Your task to perform on an android device: Open maps Image 0: 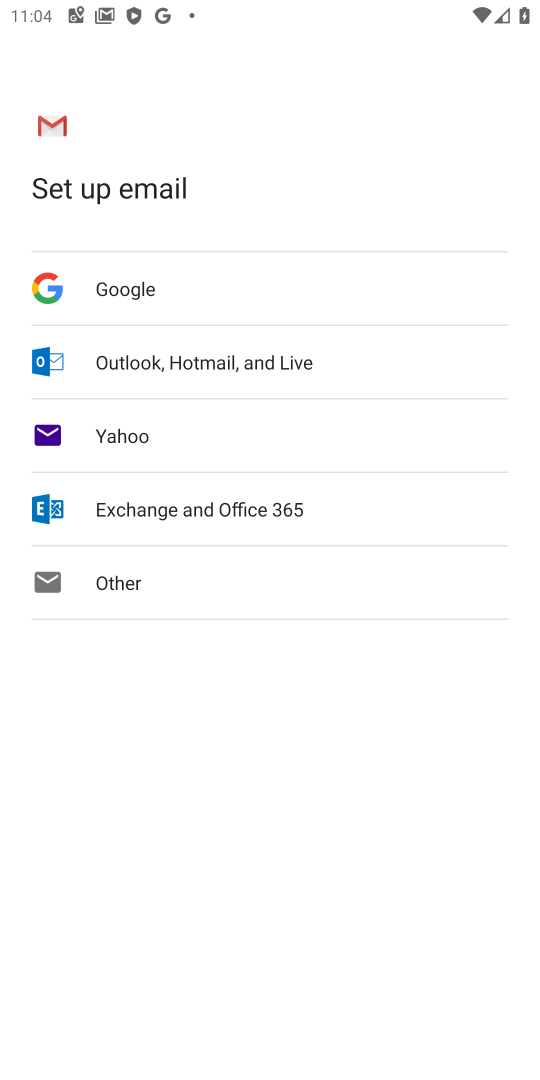
Step 0: press home button
Your task to perform on an android device: Open maps Image 1: 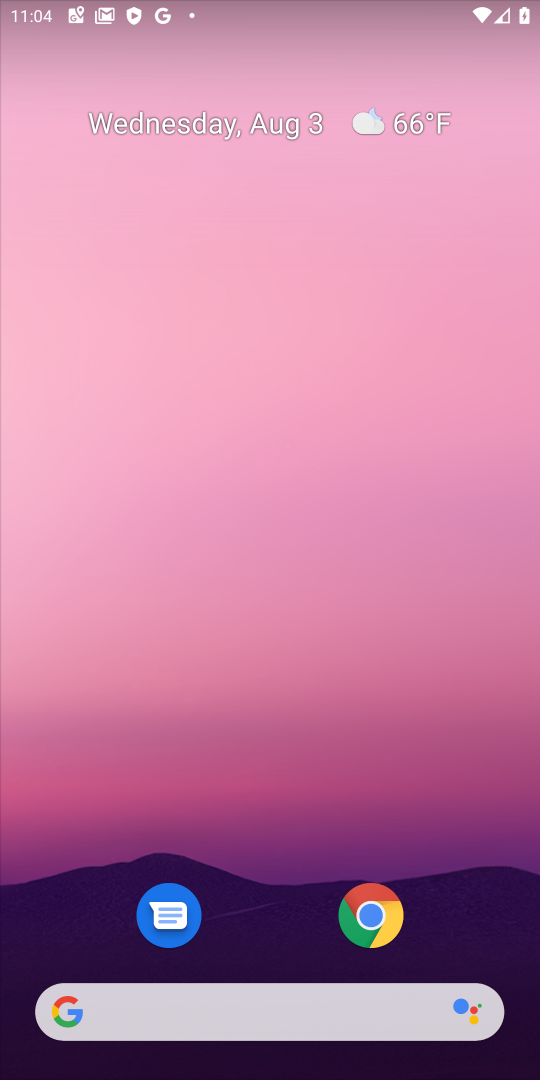
Step 1: drag from (313, 928) to (128, 121)
Your task to perform on an android device: Open maps Image 2: 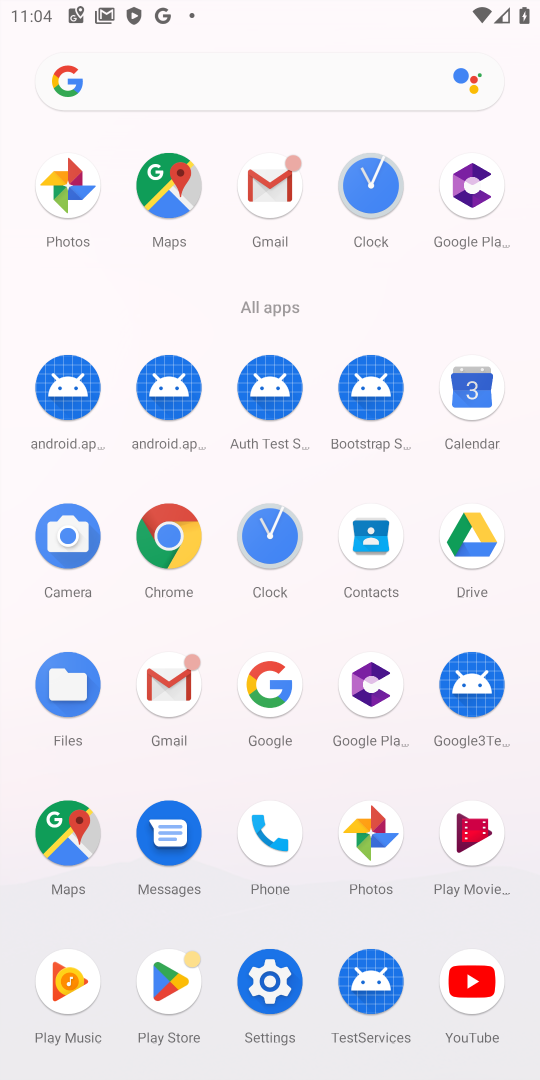
Step 2: click (74, 828)
Your task to perform on an android device: Open maps Image 3: 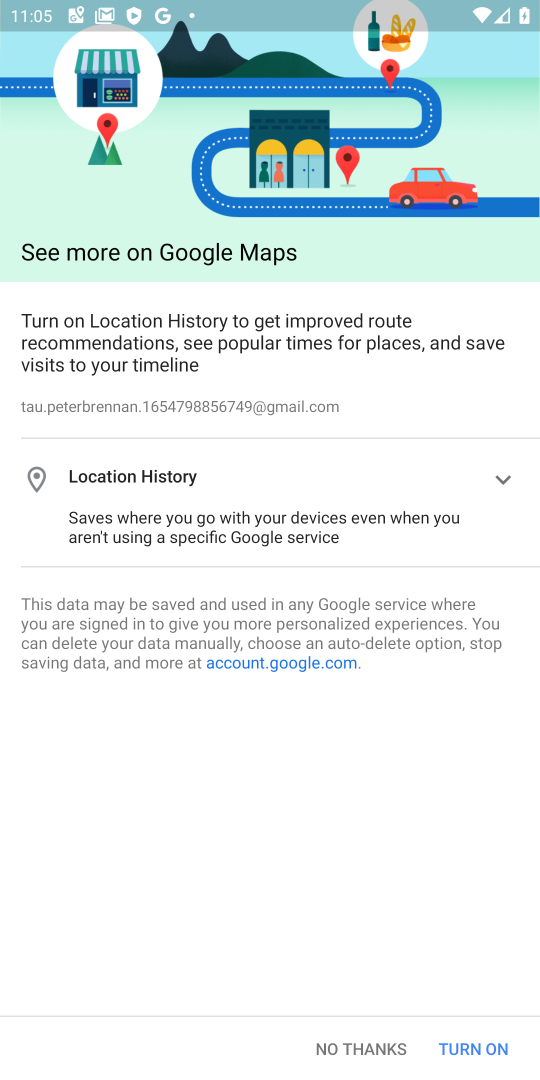
Step 3: click (496, 1046)
Your task to perform on an android device: Open maps Image 4: 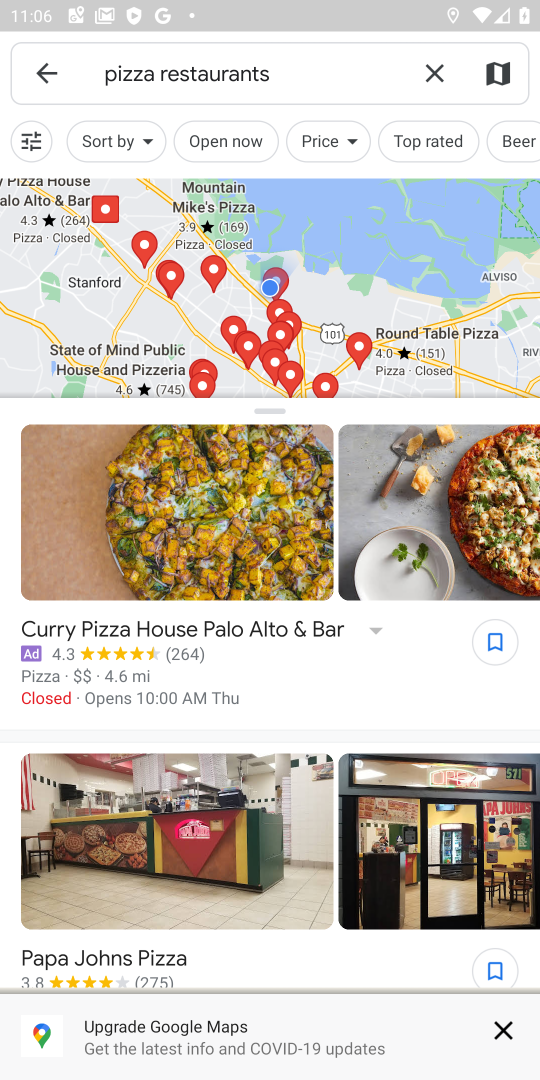
Step 4: task complete